Your task to perform on an android device: open app "Facebook Messenger" Image 0: 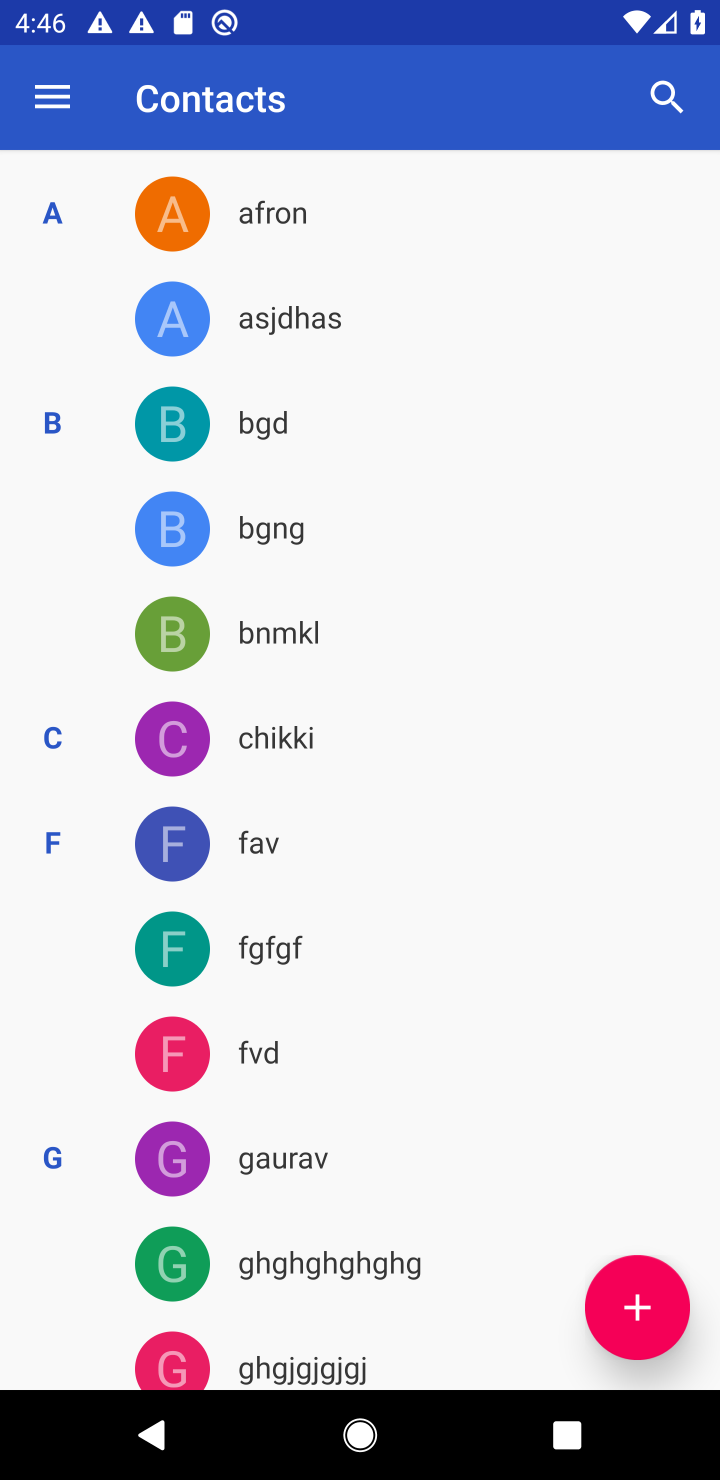
Step 0: press home button
Your task to perform on an android device: open app "Facebook Messenger" Image 1: 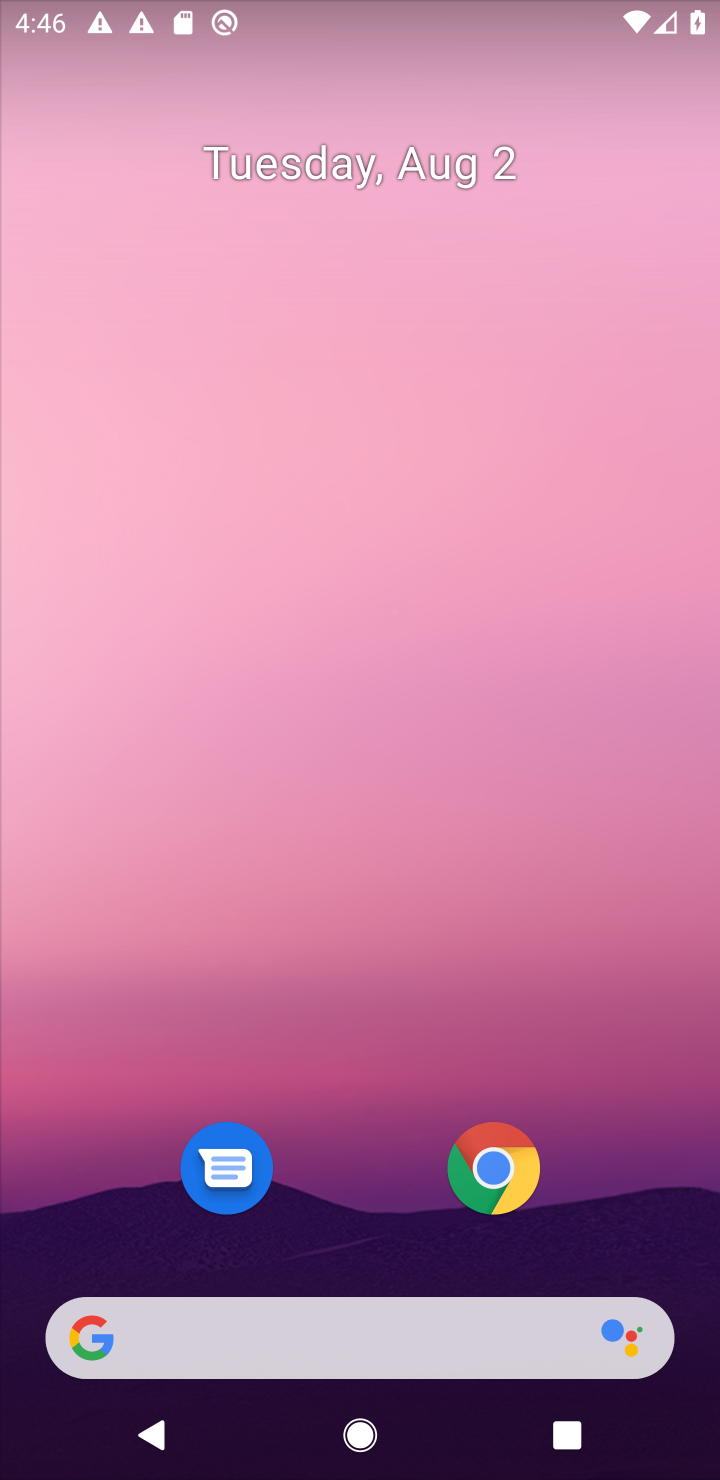
Step 1: drag from (328, 1237) to (469, 149)
Your task to perform on an android device: open app "Facebook Messenger" Image 2: 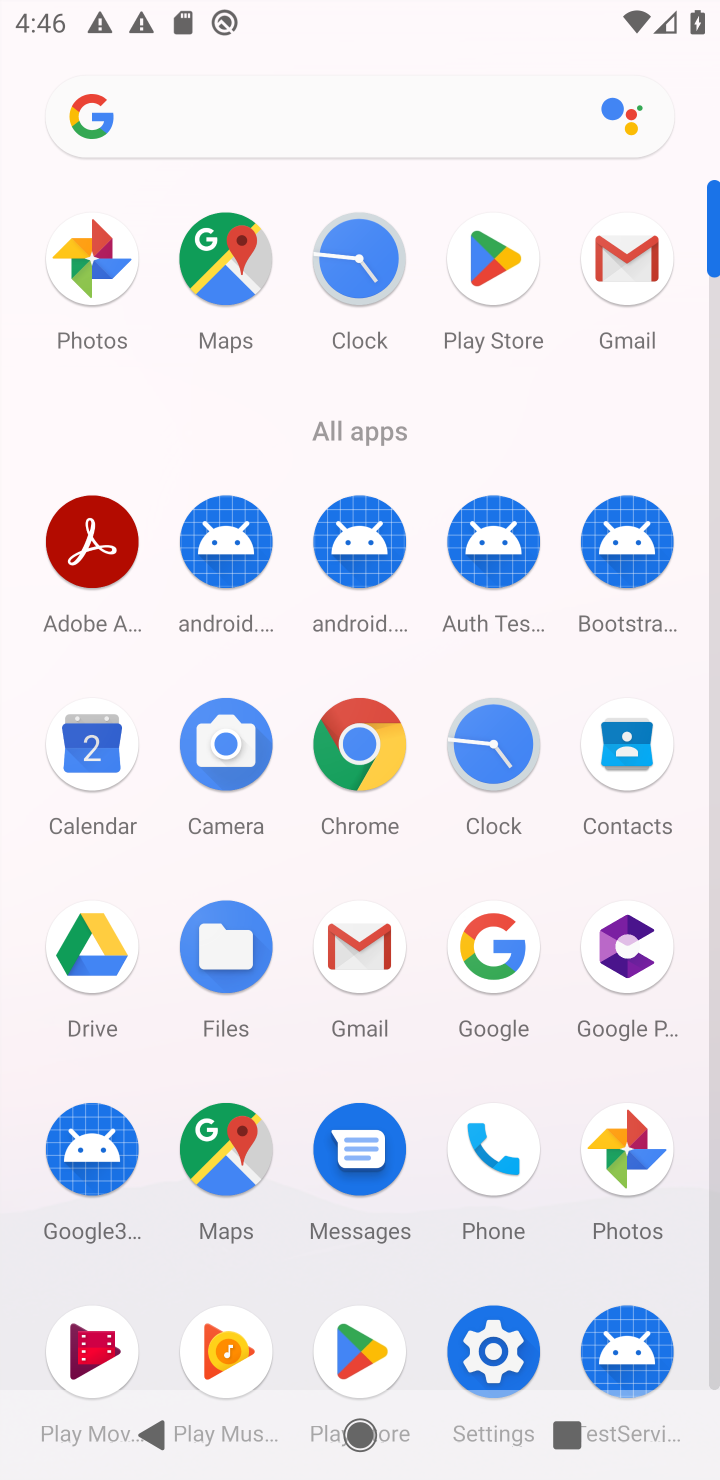
Step 2: click (502, 277)
Your task to perform on an android device: open app "Facebook Messenger" Image 3: 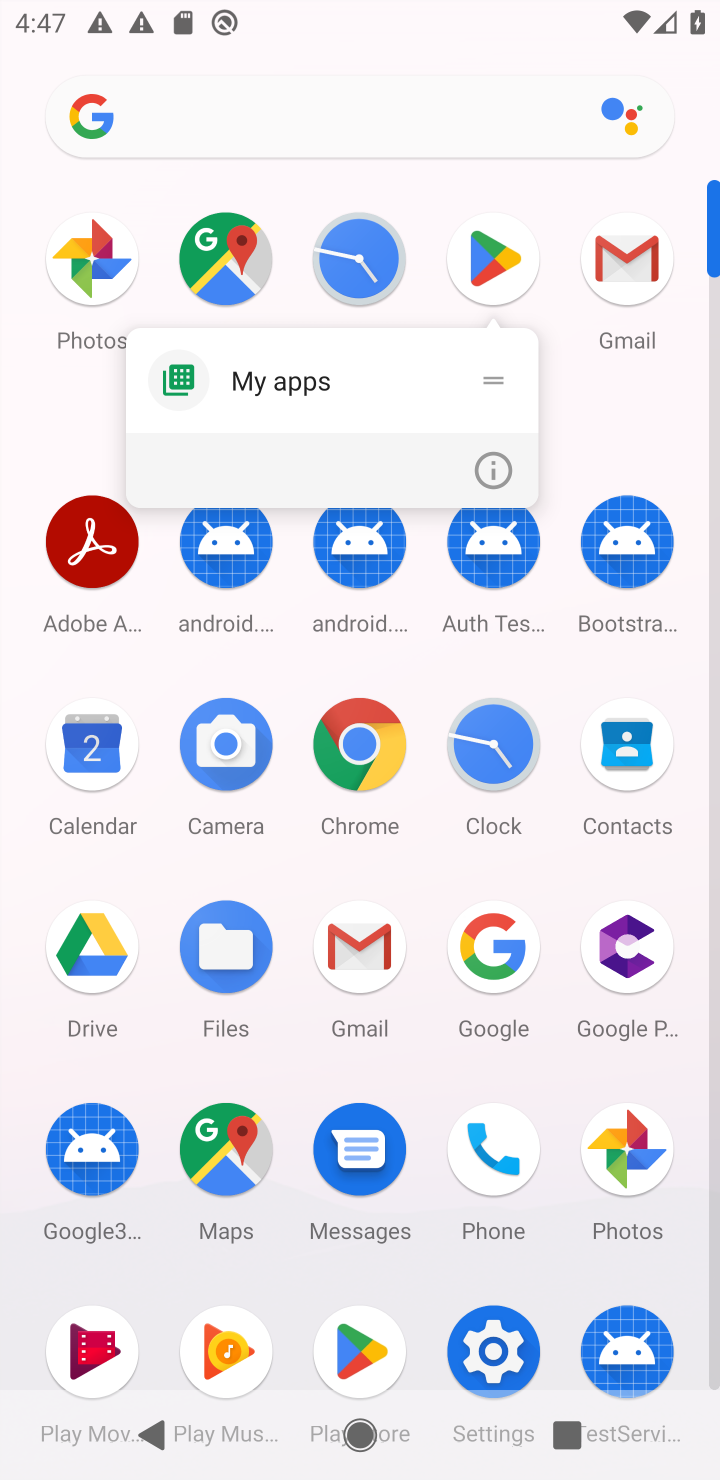
Step 3: click (489, 269)
Your task to perform on an android device: open app "Facebook Messenger" Image 4: 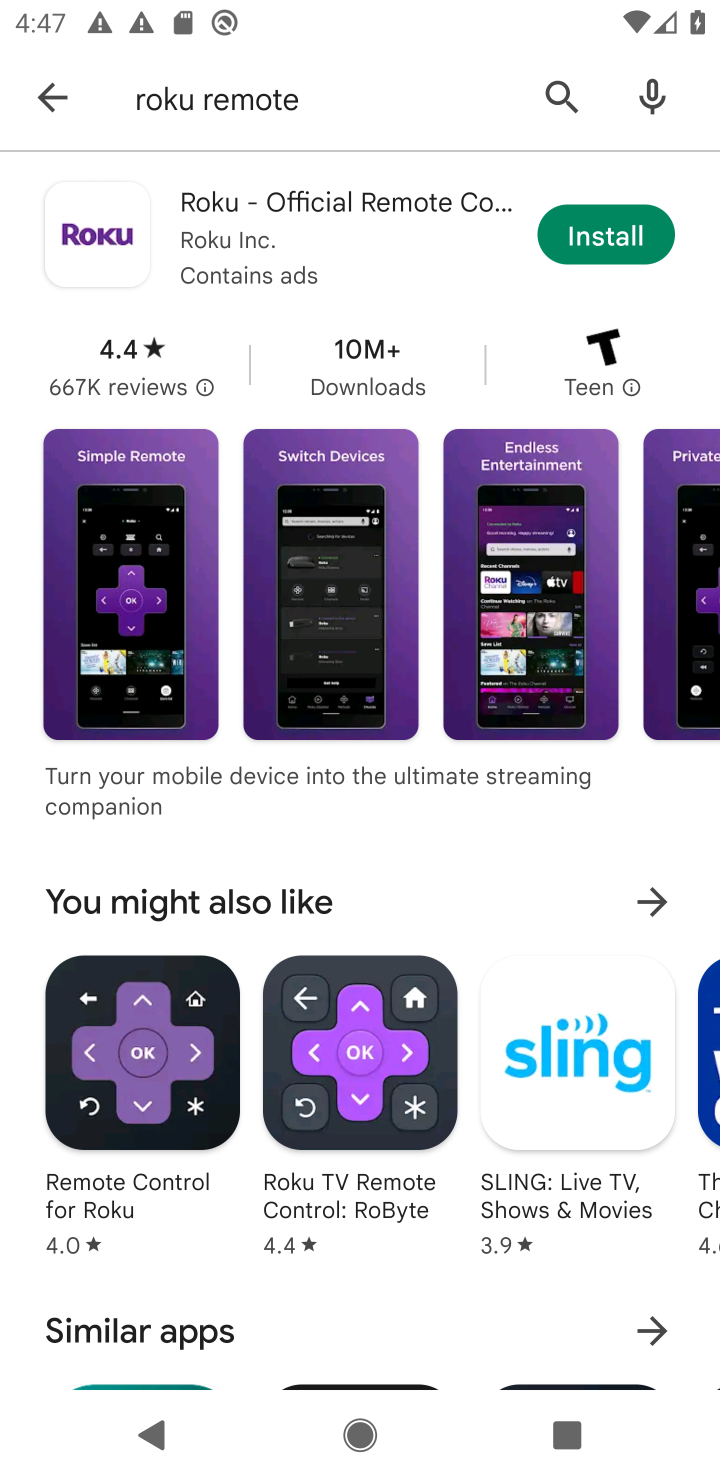
Step 4: click (316, 58)
Your task to perform on an android device: open app "Facebook Messenger" Image 5: 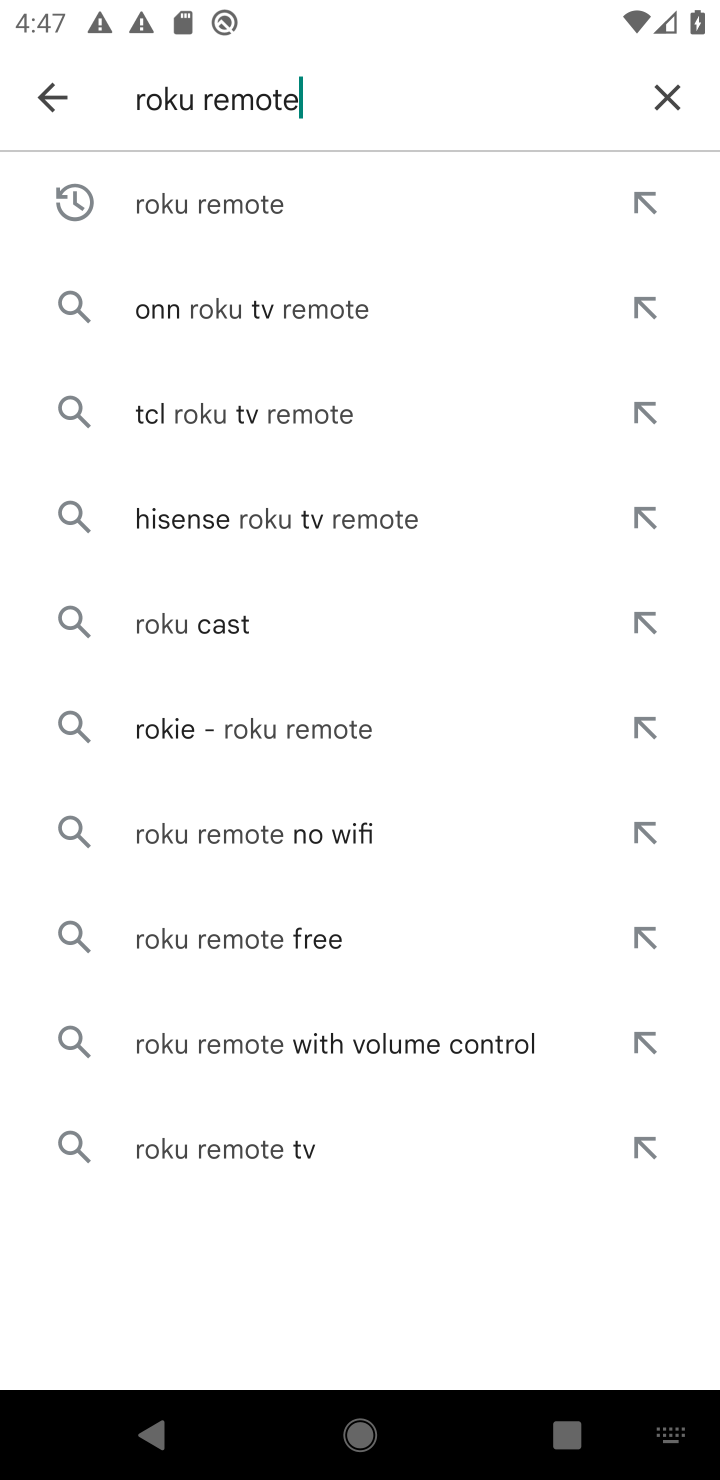
Step 5: click (655, 117)
Your task to perform on an android device: open app "Facebook Messenger" Image 6: 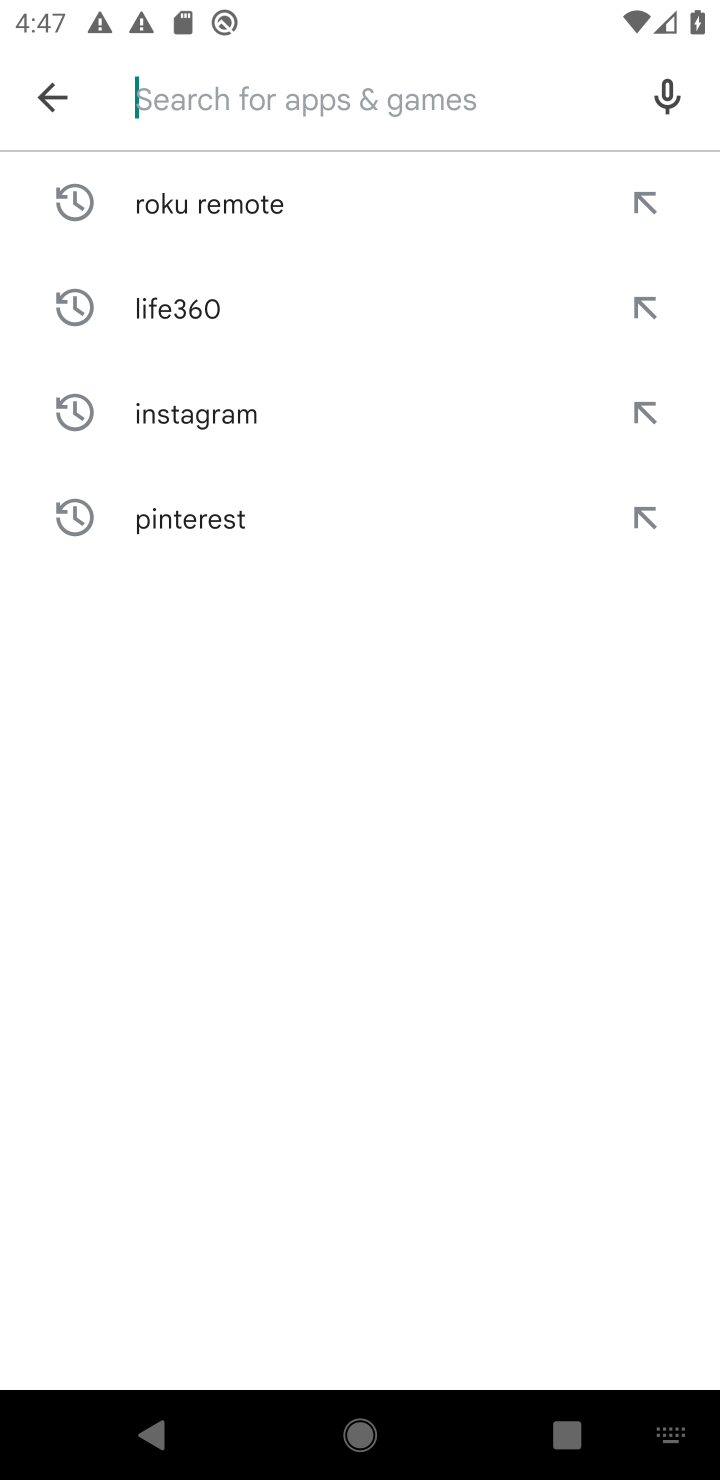
Step 6: type "facebook messengeer"
Your task to perform on an android device: open app "Facebook Messenger" Image 7: 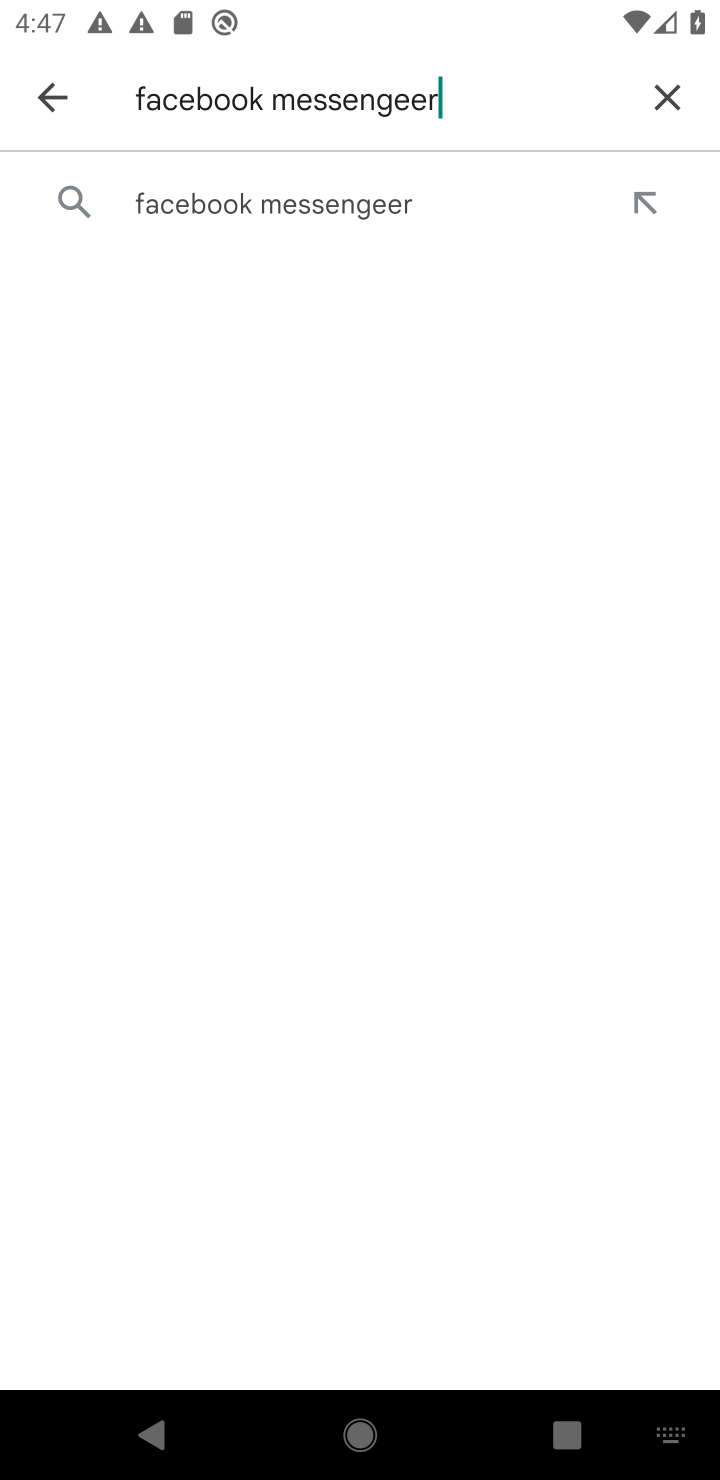
Step 7: click (248, 214)
Your task to perform on an android device: open app "Facebook Messenger" Image 8: 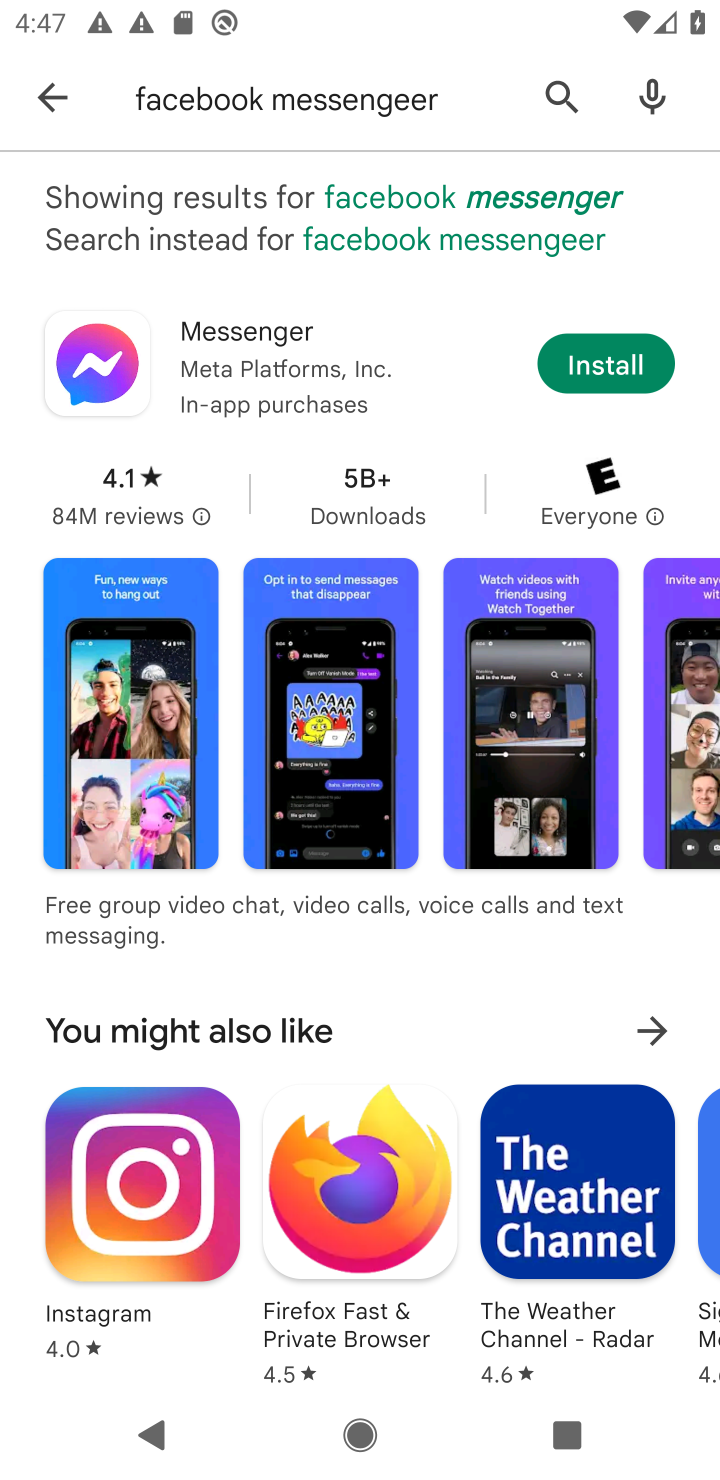
Step 8: task complete